Your task to perform on an android device: Search for logitech g903 on amazon, select the first entry, and add it to the cart. Image 0: 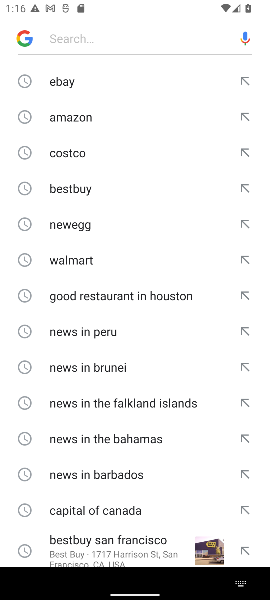
Step 0: click (70, 43)
Your task to perform on an android device: Search for logitech g903 on amazon, select the first entry, and add it to the cart. Image 1: 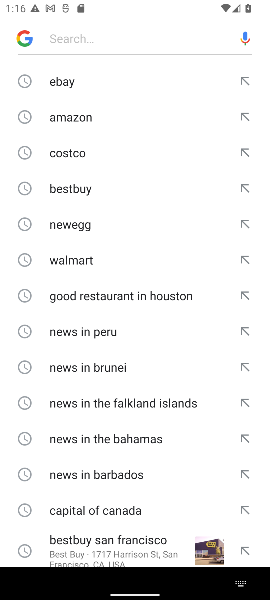
Step 1: type "amazon.com"
Your task to perform on an android device: Search for logitech g903 on amazon, select the first entry, and add it to the cart. Image 2: 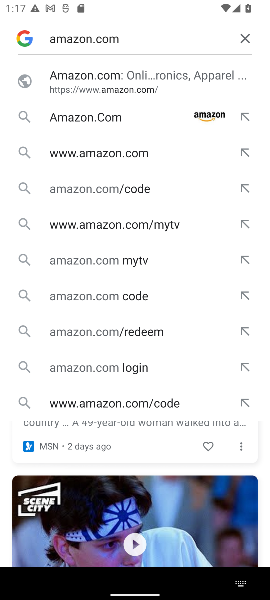
Step 2: click (60, 78)
Your task to perform on an android device: Search for logitech g903 on amazon, select the first entry, and add it to the cart. Image 3: 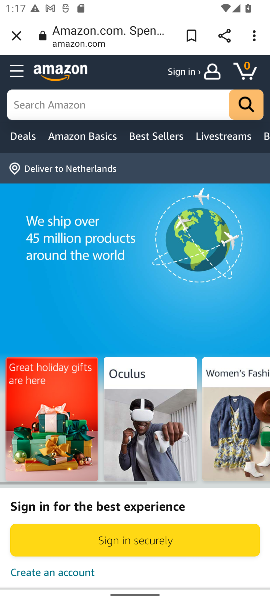
Step 3: click (14, 105)
Your task to perform on an android device: Search for logitech g903 on amazon, select the first entry, and add it to the cart. Image 4: 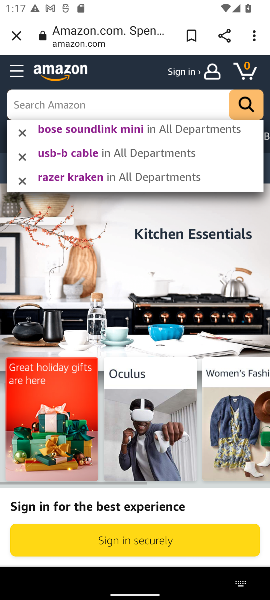
Step 4: type " logitech g903"
Your task to perform on an android device: Search for logitech g903 on amazon, select the first entry, and add it to the cart. Image 5: 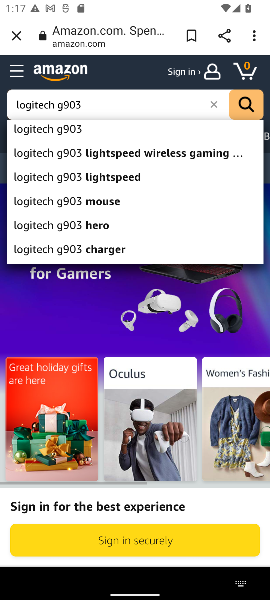
Step 5: click (51, 130)
Your task to perform on an android device: Search for logitech g903 on amazon, select the first entry, and add it to the cart. Image 6: 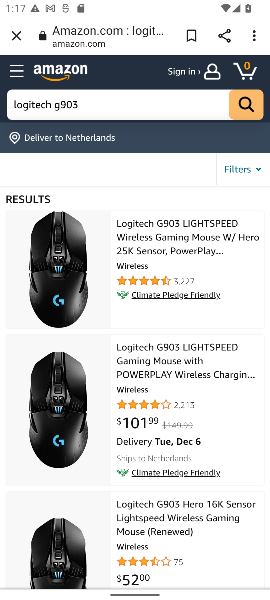
Step 6: click (142, 245)
Your task to perform on an android device: Search for logitech g903 on amazon, select the first entry, and add it to the cart. Image 7: 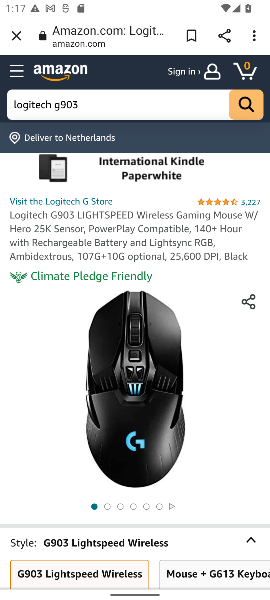
Step 7: task complete